Your task to perform on an android device: check android version Image 0: 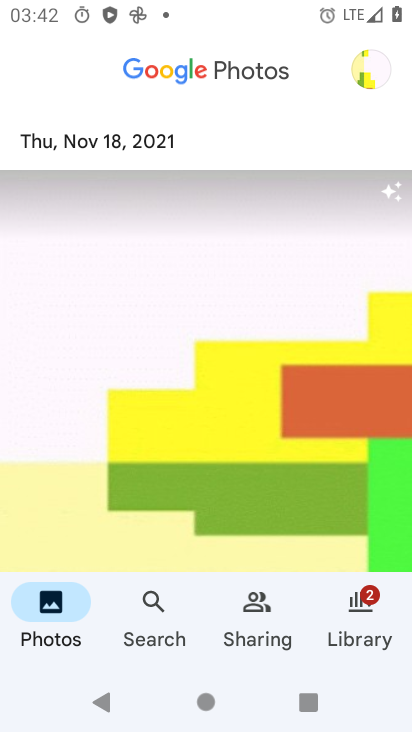
Step 0: press home button
Your task to perform on an android device: check android version Image 1: 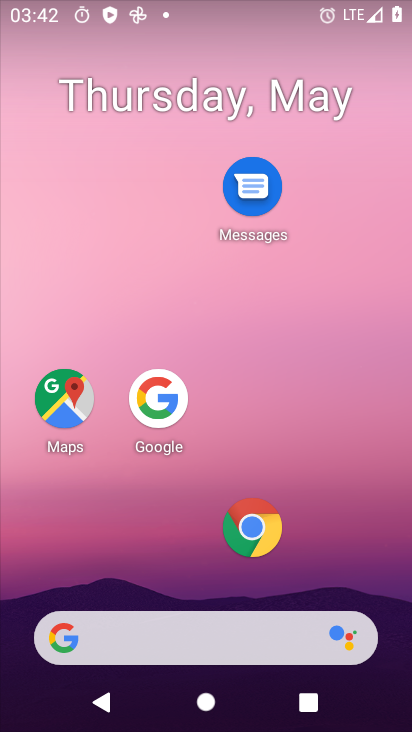
Step 1: drag from (210, 564) to (185, 98)
Your task to perform on an android device: check android version Image 2: 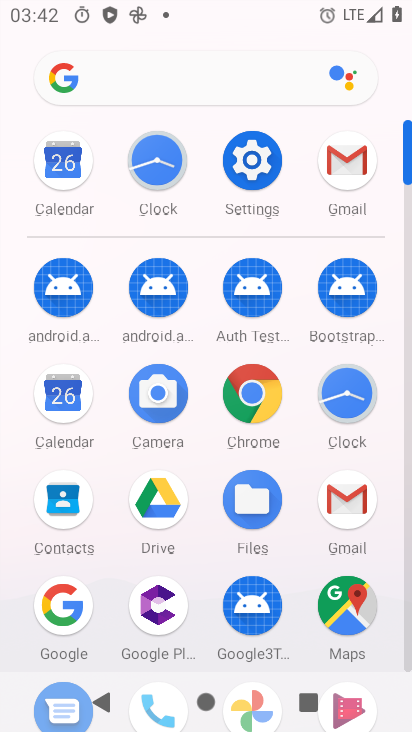
Step 2: click (260, 163)
Your task to perform on an android device: check android version Image 3: 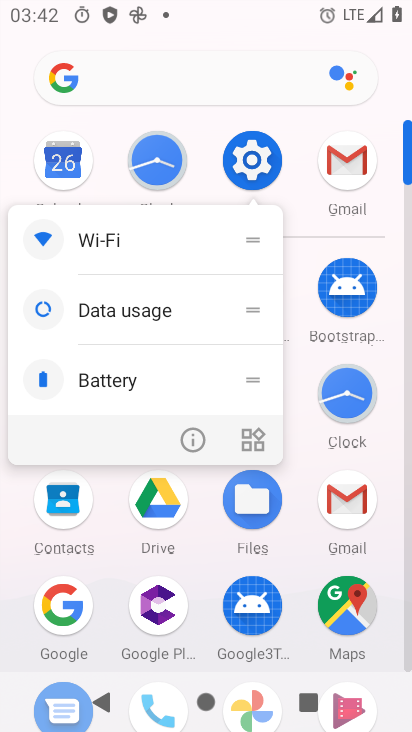
Step 3: click (189, 438)
Your task to perform on an android device: check android version Image 4: 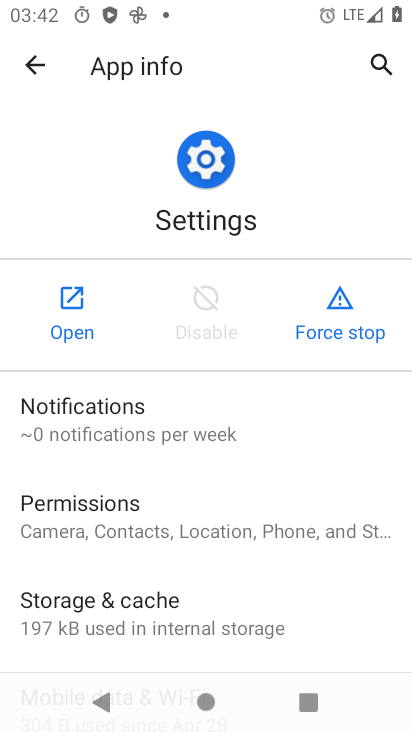
Step 4: click (83, 289)
Your task to perform on an android device: check android version Image 5: 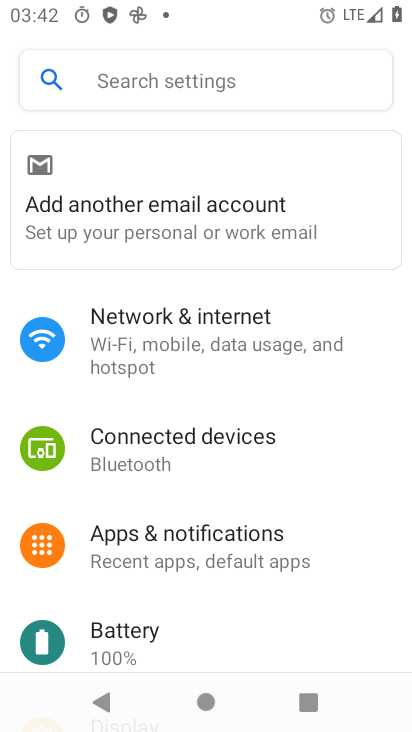
Step 5: drag from (220, 529) to (210, 128)
Your task to perform on an android device: check android version Image 6: 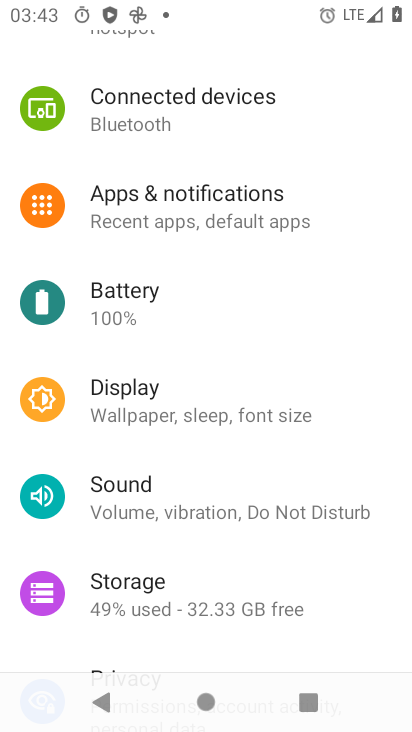
Step 6: drag from (200, 565) to (229, 11)
Your task to perform on an android device: check android version Image 7: 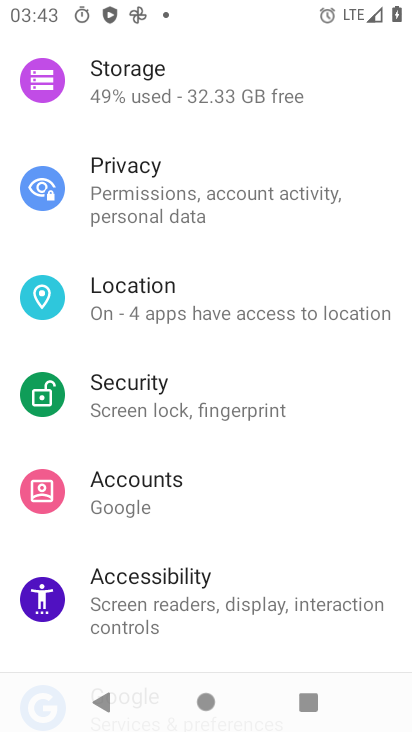
Step 7: drag from (167, 627) to (229, 34)
Your task to perform on an android device: check android version Image 8: 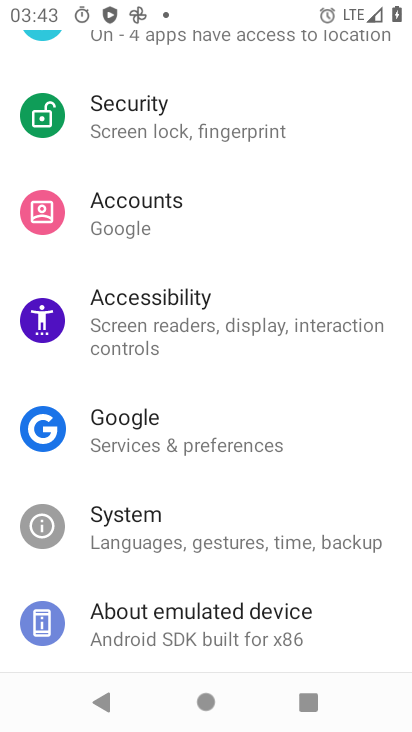
Step 8: click (207, 631)
Your task to perform on an android device: check android version Image 9: 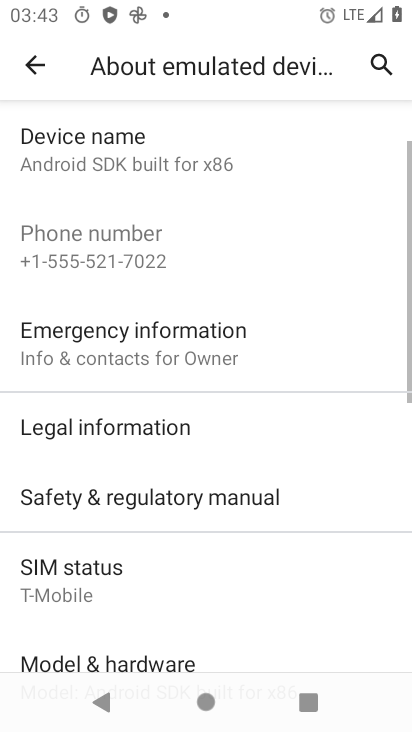
Step 9: drag from (179, 411) to (246, 5)
Your task to perform on an android device: check android version Image 10: 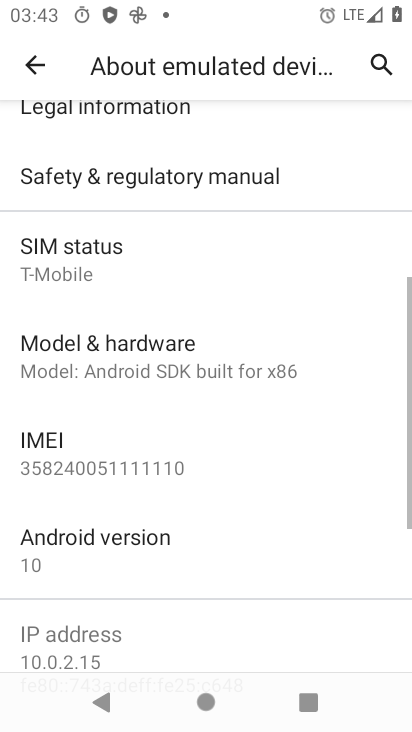
Step 10: click (133, 521)
Your task to perform on an android device: check android version Image 11: 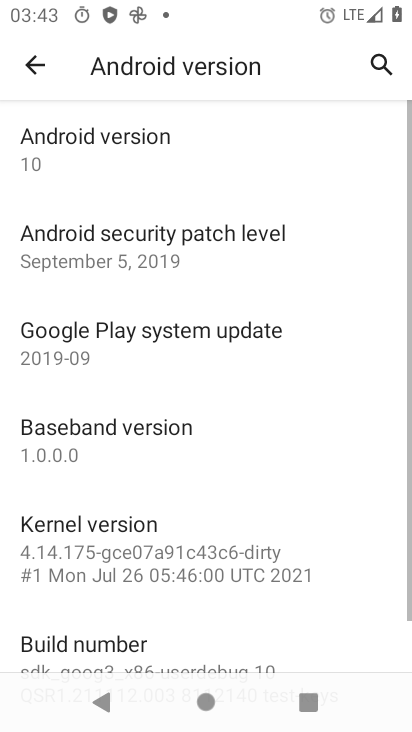
Step 11: task complete